Your task to perform on an android device: turn on the 24-hour format for clock Image 0: 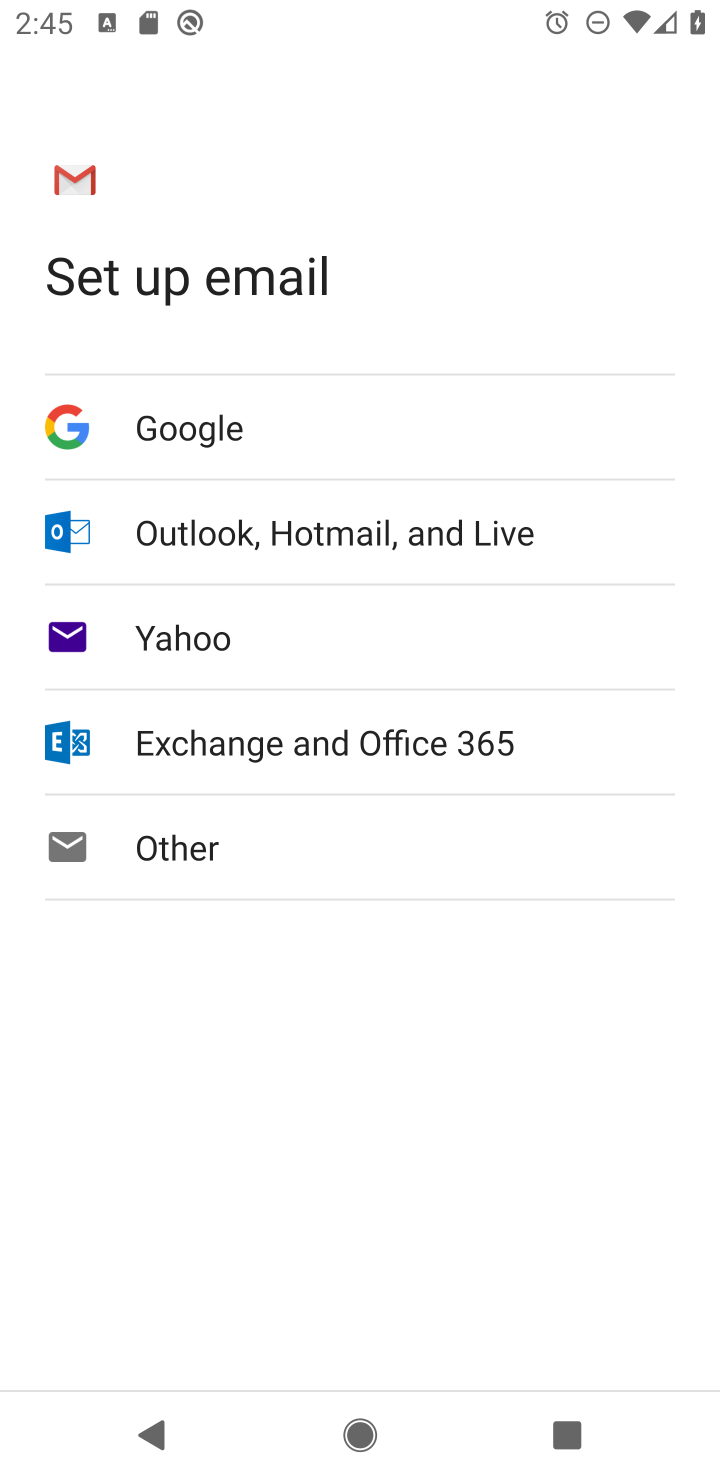
Step 0: press home button
Your task to perform on an android device: turn on the 24-hour format for clock Image 1: 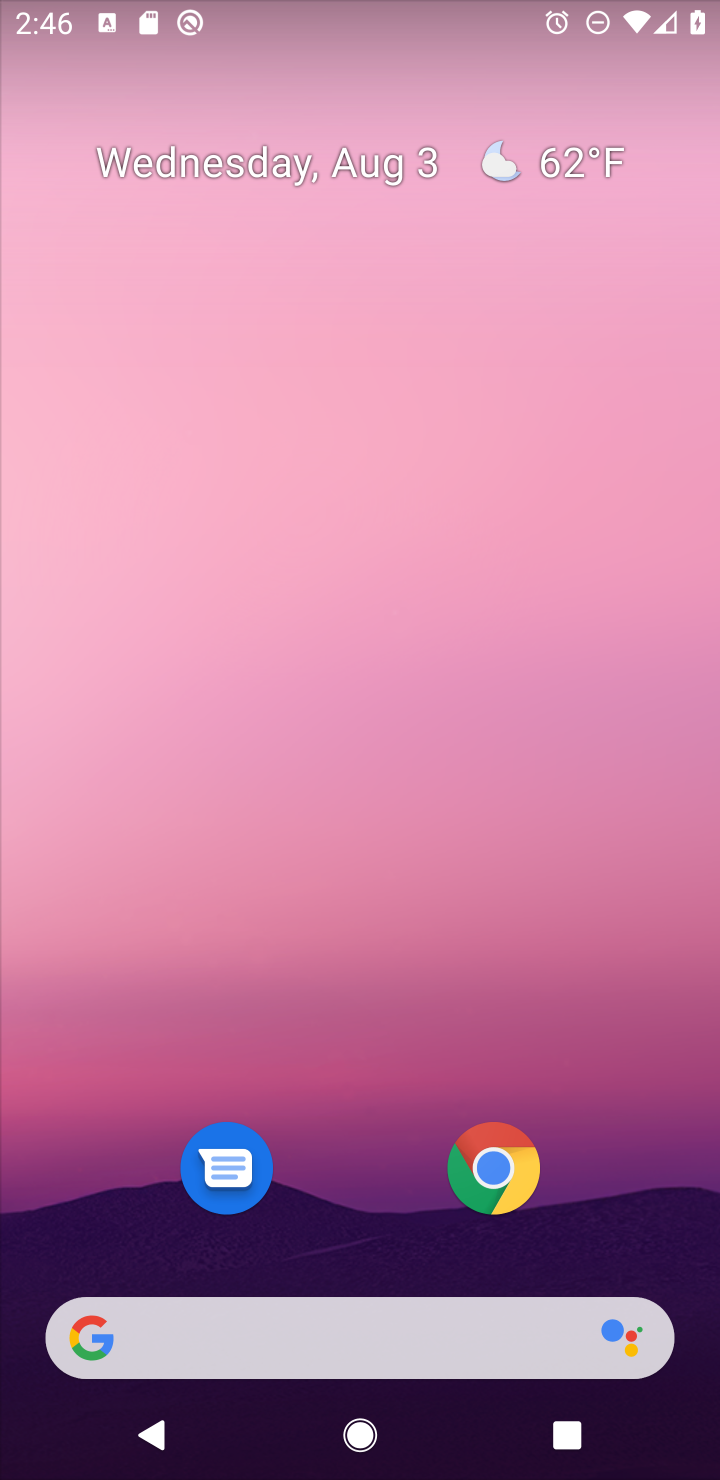
Step 1: drag from (651, 1074) to (605, 404)
Your task to perform on an android device: turn on the 24-hour format for clock Image 2: 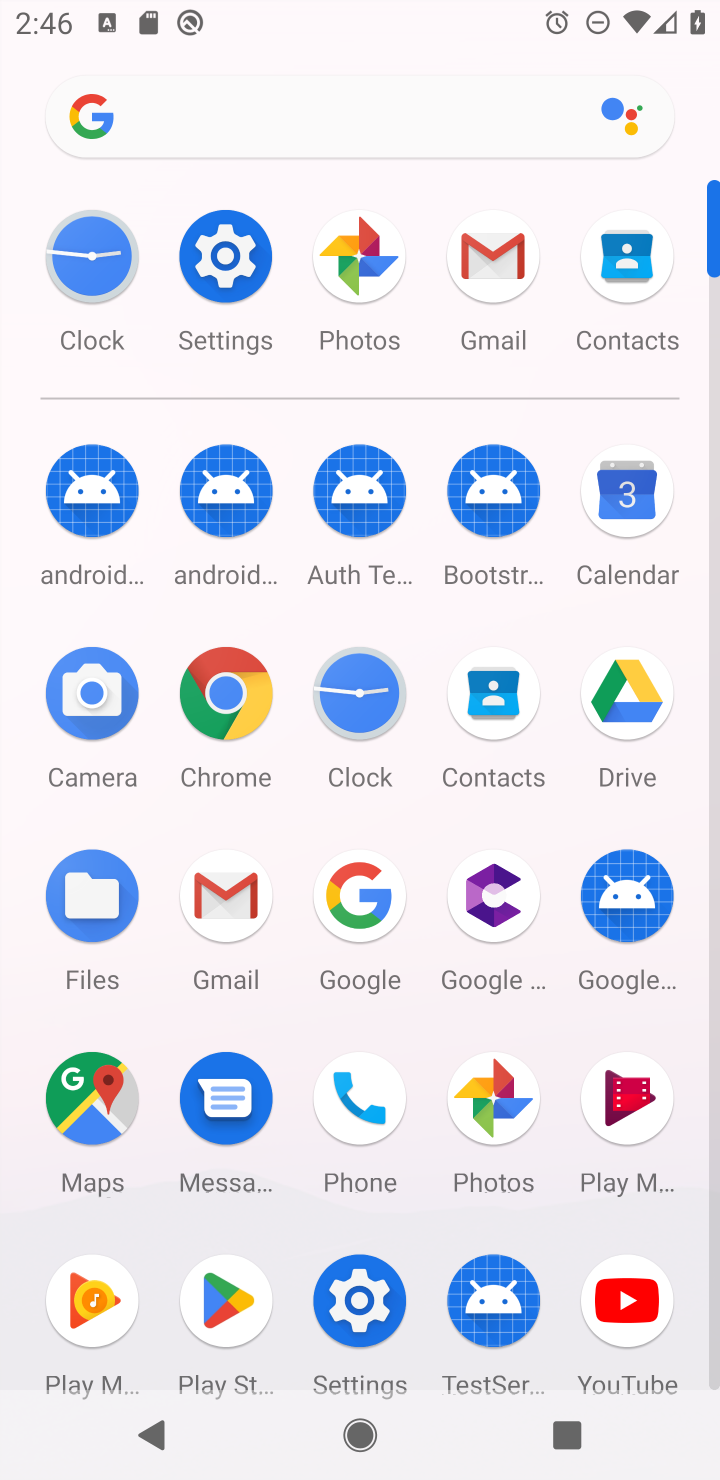
Step 2: click (356, 690)
Your task to perform on an android device: turn on the 24-hour format for clock Image 3: 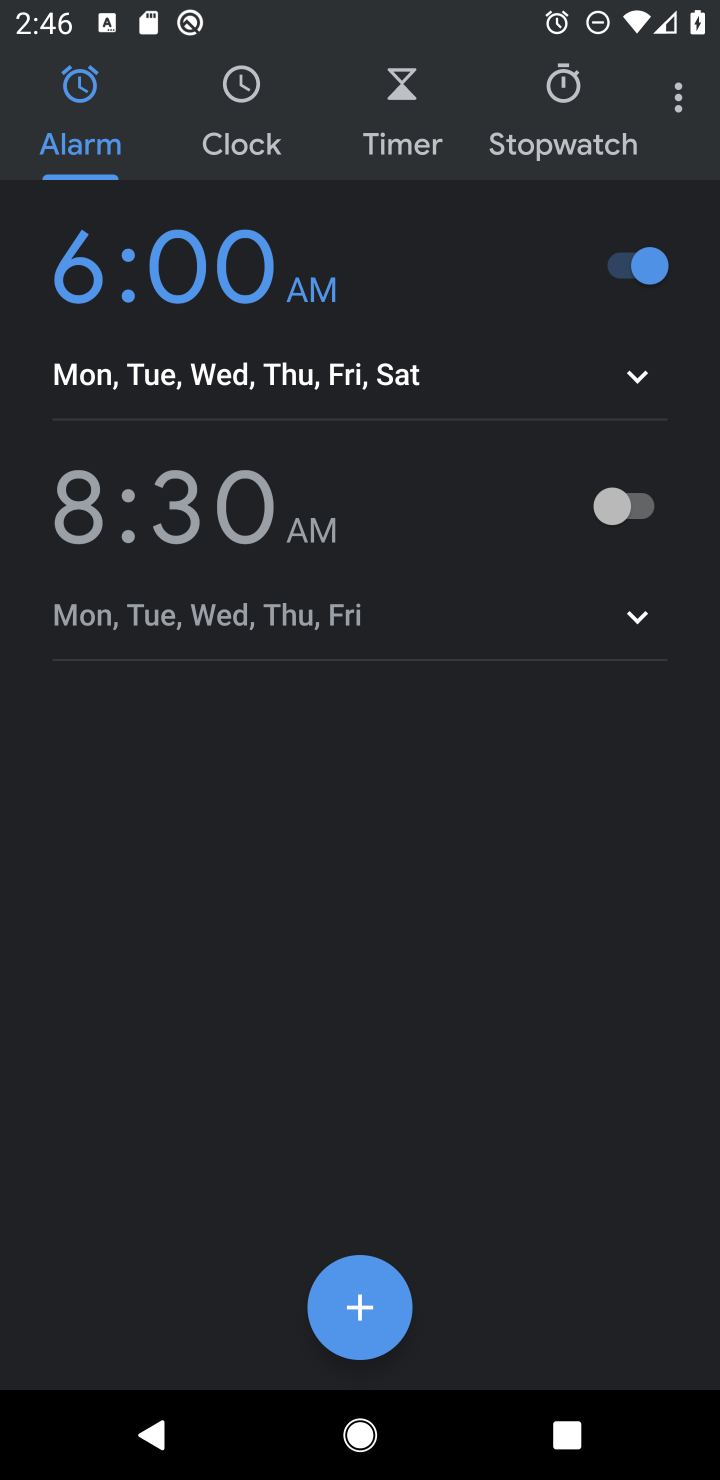
Step 3: click (677, 112)
Your task to perform on an android device: turn on the 24-hour format for clock Image 4: 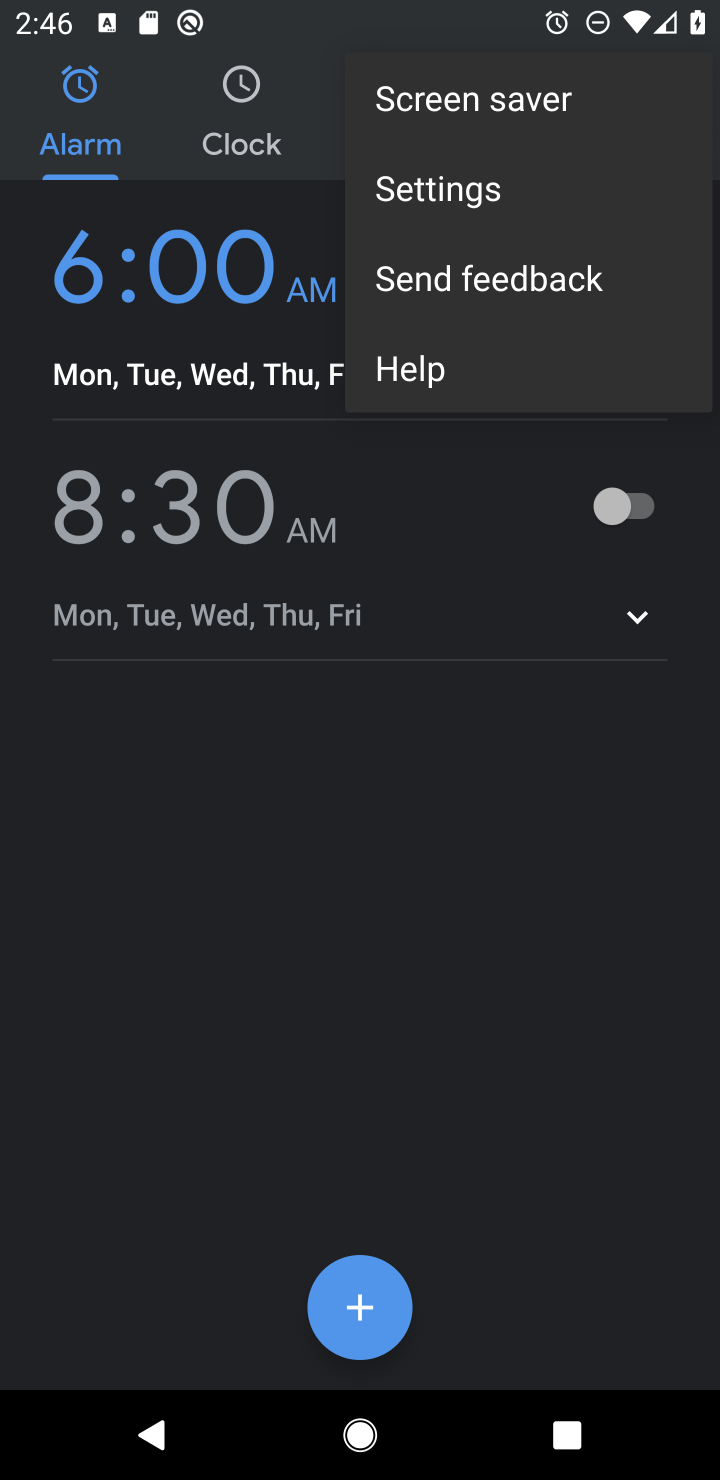
Step 4: click (423, 182)
Your task to perform on an android device: turn on the 24-hour format for clock Image 5: 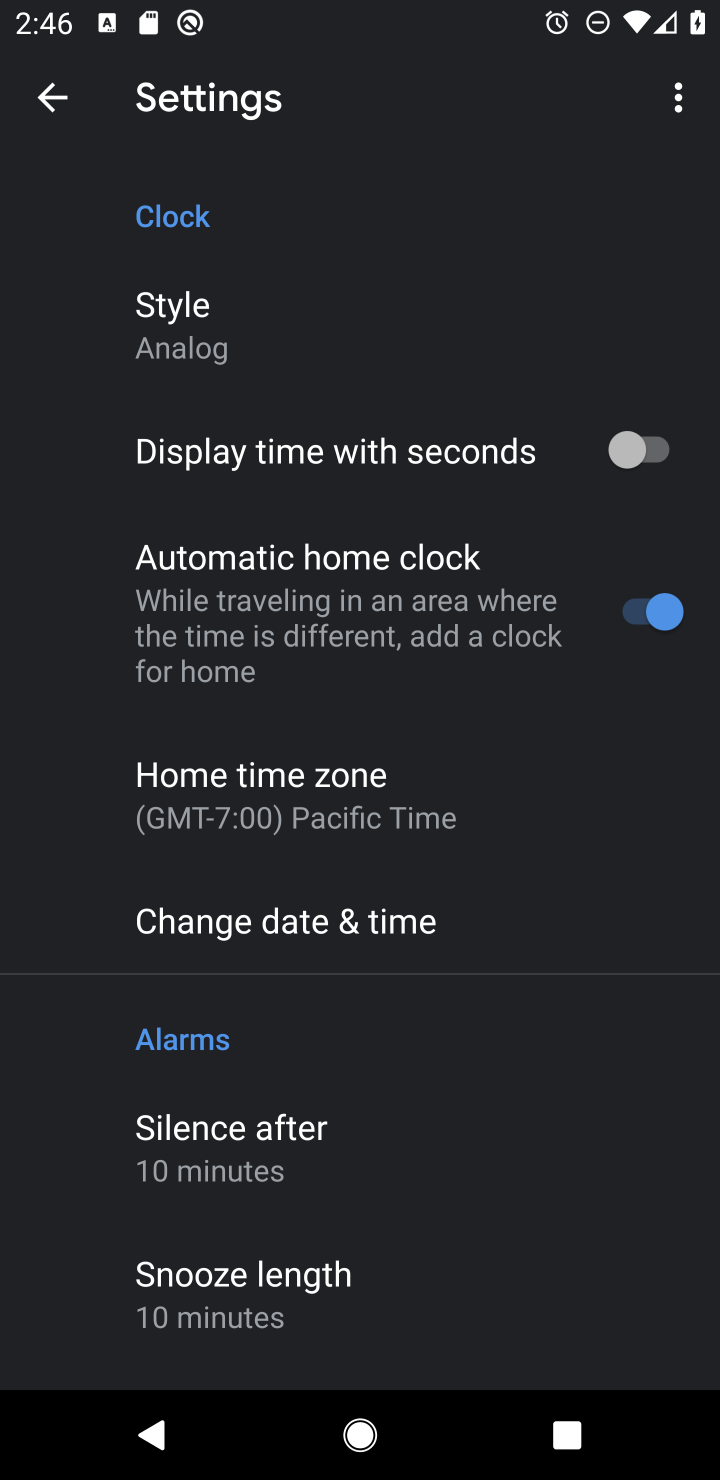
Step 5: click (302, 930)
Your task to perform on an android device: turn on the 24-hour format for clock Image 6: 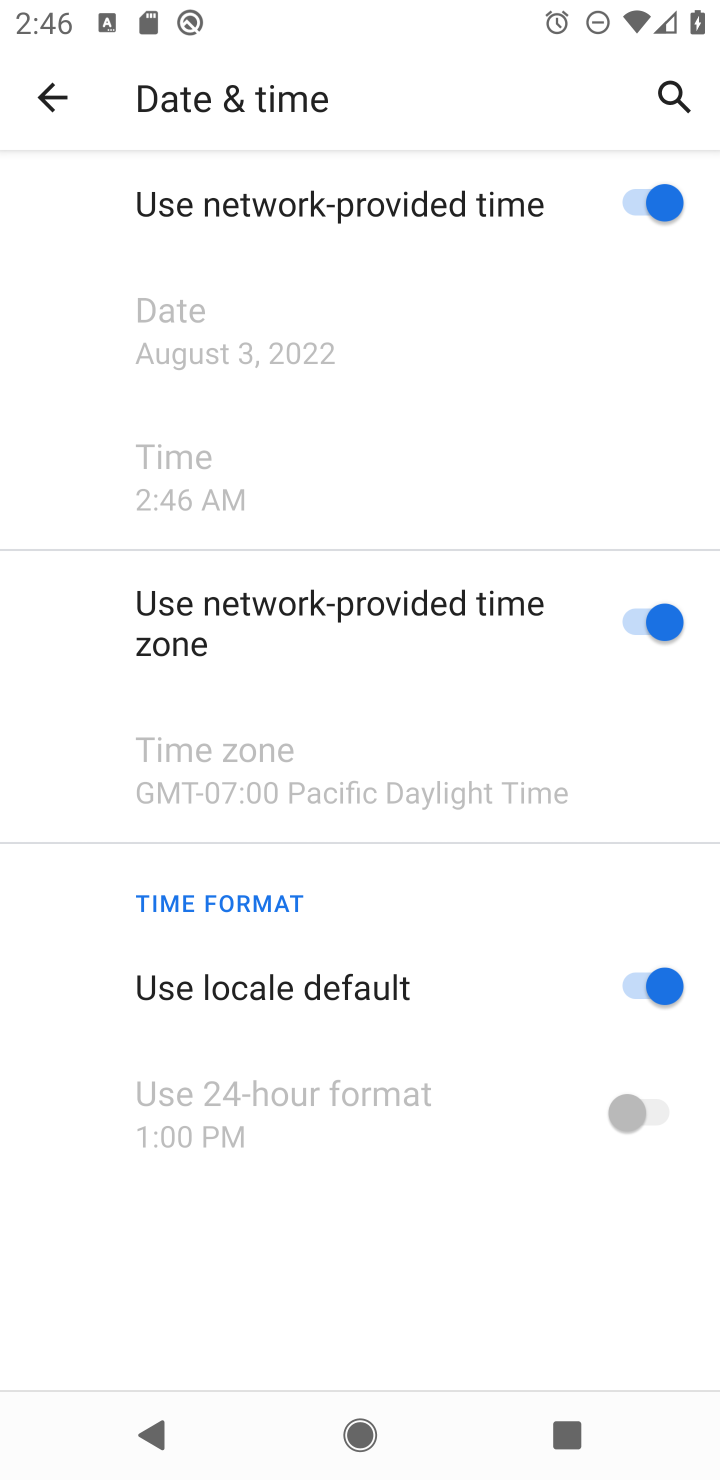
Step 6: click (643, 1109)
Your task to perform on an android device: turn on the 24-hour format for clock Image 7: 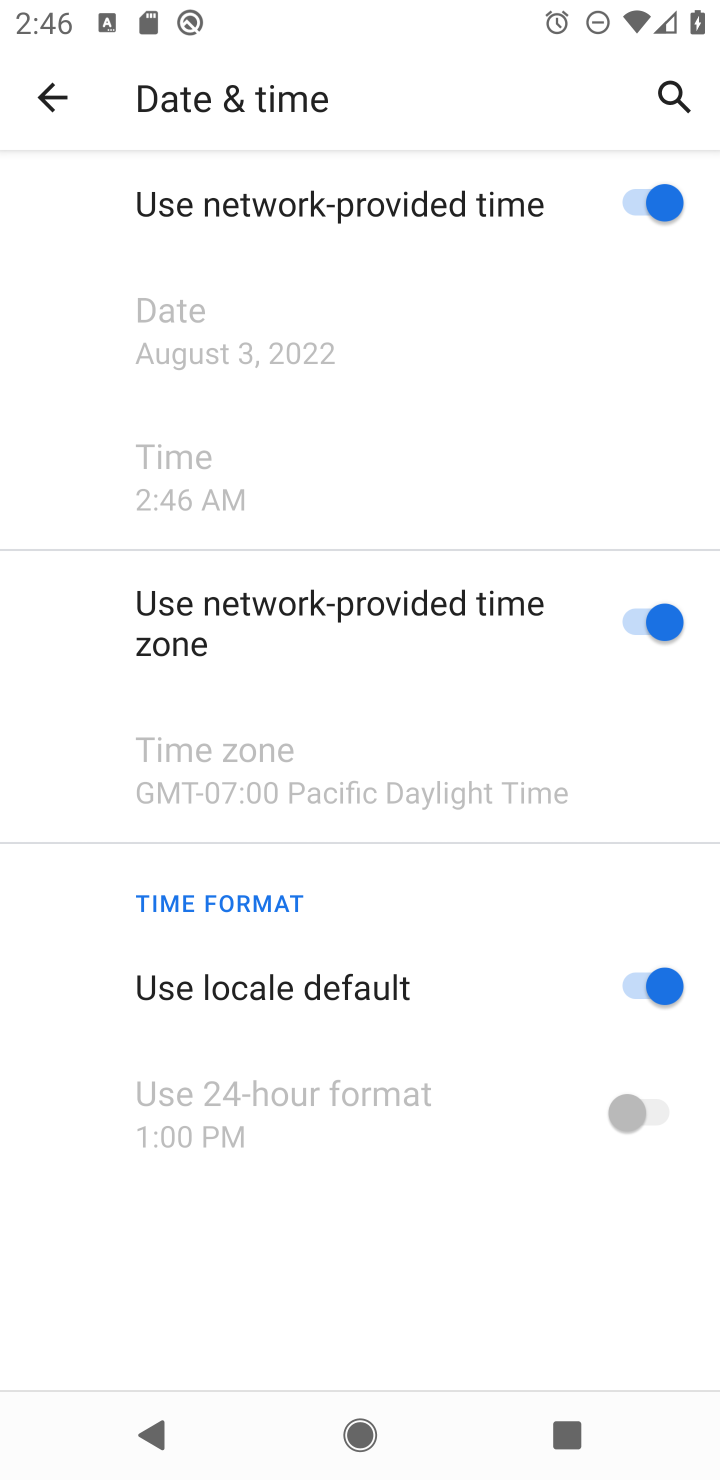
Step 7: click (636, 985)
Your task to perform on an android device: turn on the 24-hour format for clock Image 8: 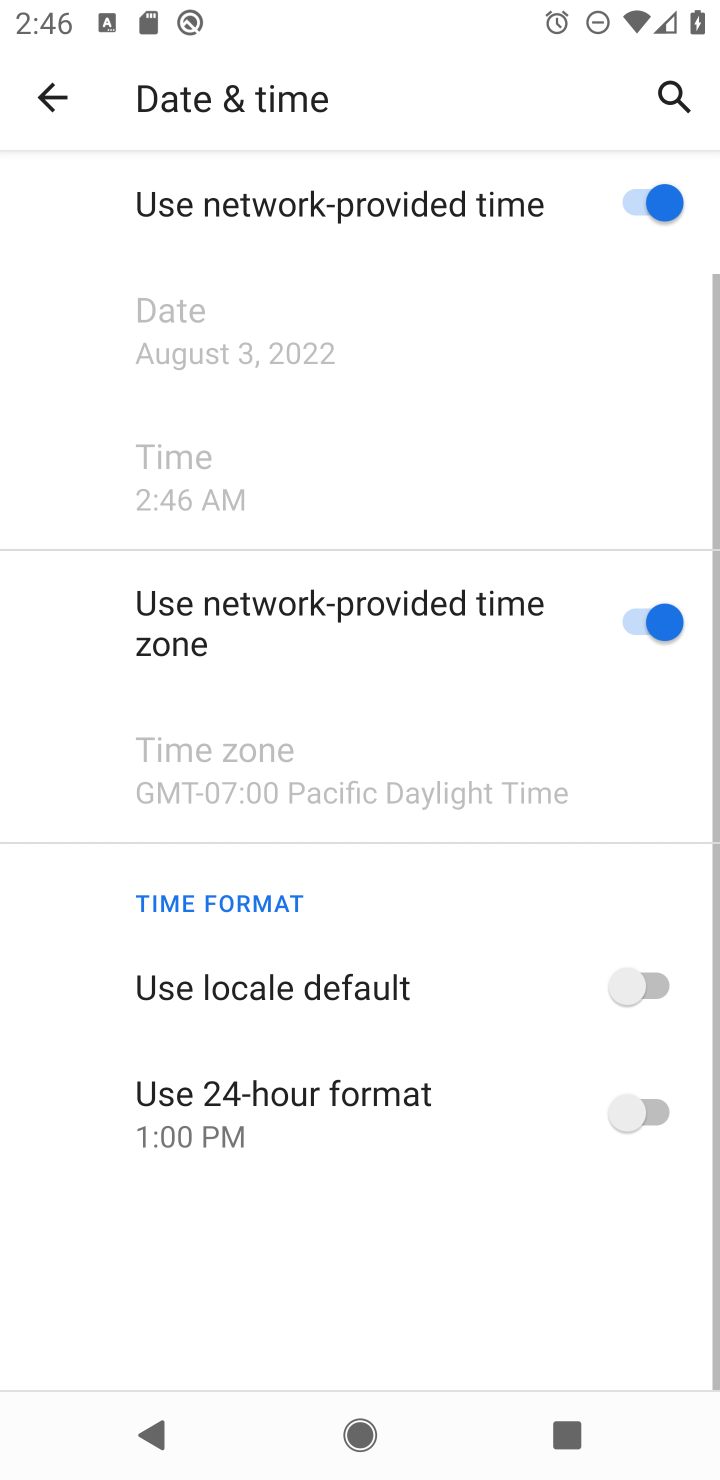
Step 8: click (655, 1109)
Your task to perform on an android device: turn on the 24-hour format for clock Image 9: 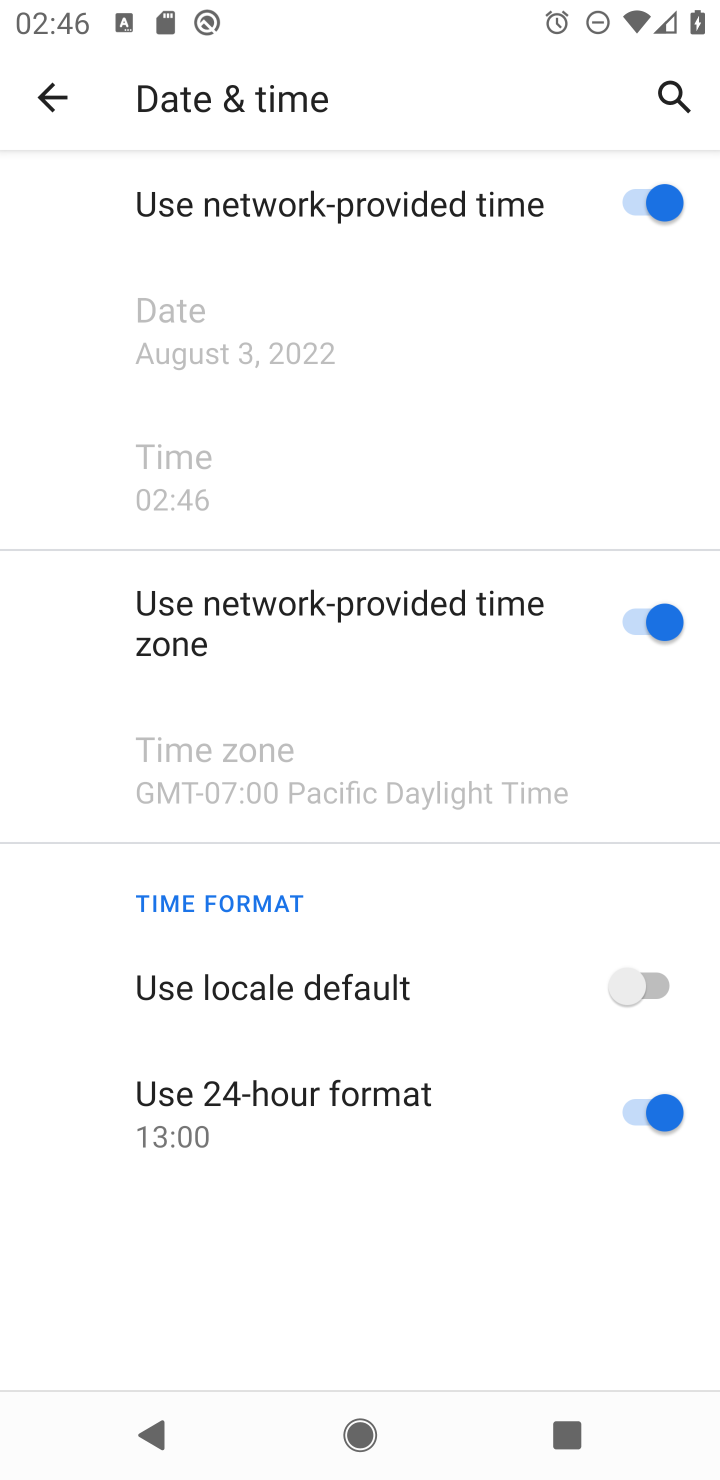
Step 9: task complete